Your task to perform on an android device: Open settings Image 0: 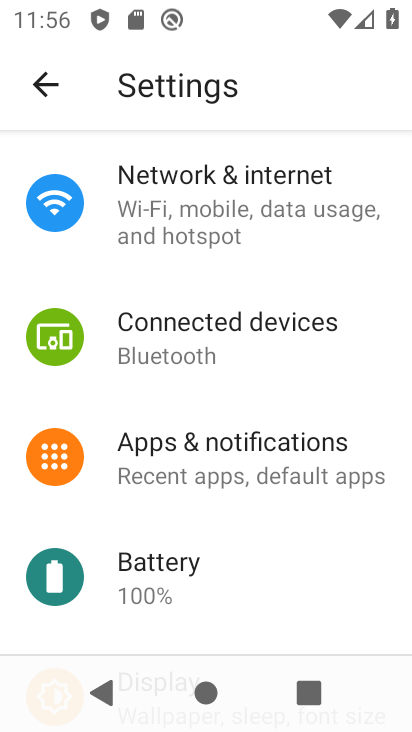
Step 0: drag from (207, 590) to (248, 65)
Your task to perform on an android device: Open settings Image 1: 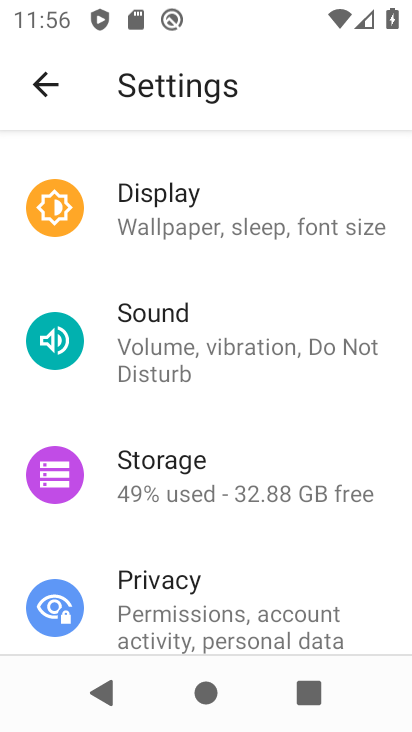
Step 1: task complete